Your task to perform on an android device: turn off notifications settings in the gmail app Image 0: 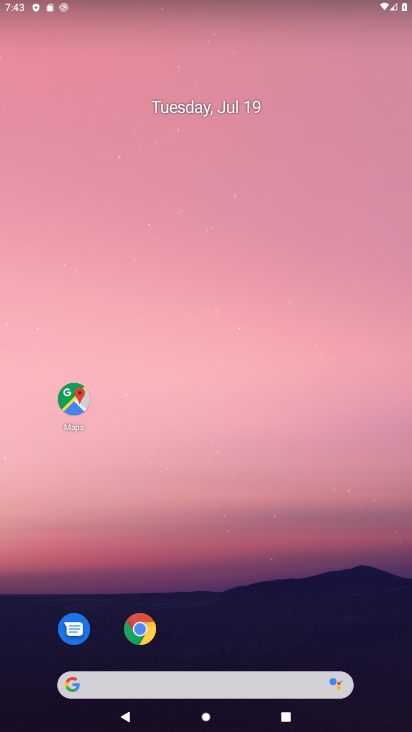
Step 0: drag from (236, 634) to (236, 132)
Your task to perform on an android device: turn off notifications settings in the gmail app Image 1: 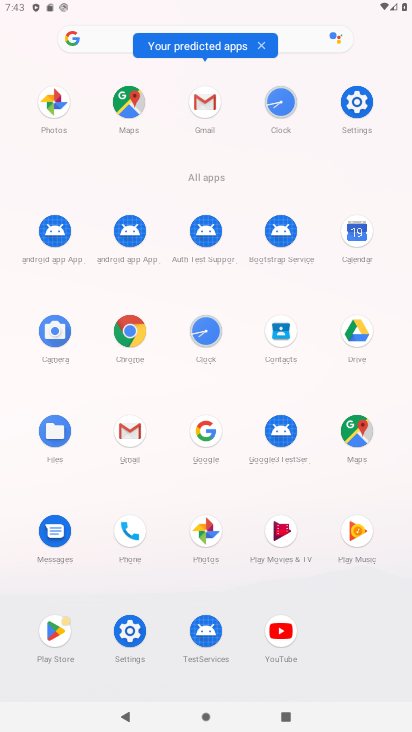
Step 1: click (208, 111)
Your task to perform on an android device: turn off notifications settings in the gmail app Image 2: 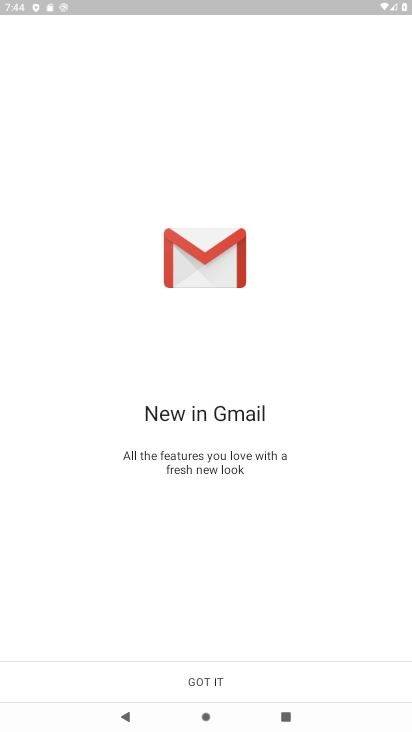
Step 2: click (184, 677)
Your task to perform on an android device: turn off notifications settings in the gmail app Image 3: 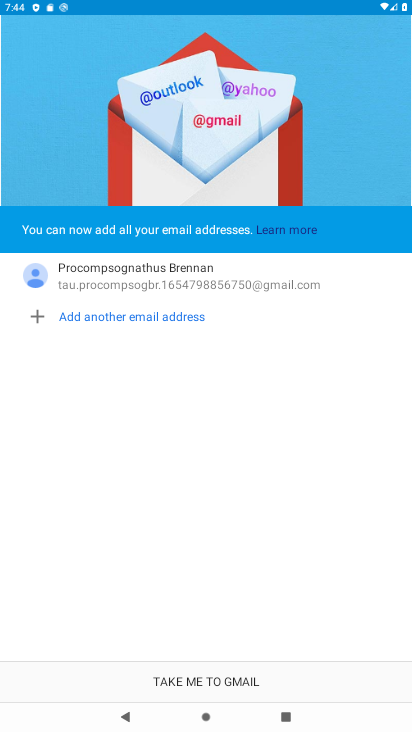
Step 3: click (184, 677)
Your task to perform on an android device: turn off notifications settings in the gmail app Image 4: 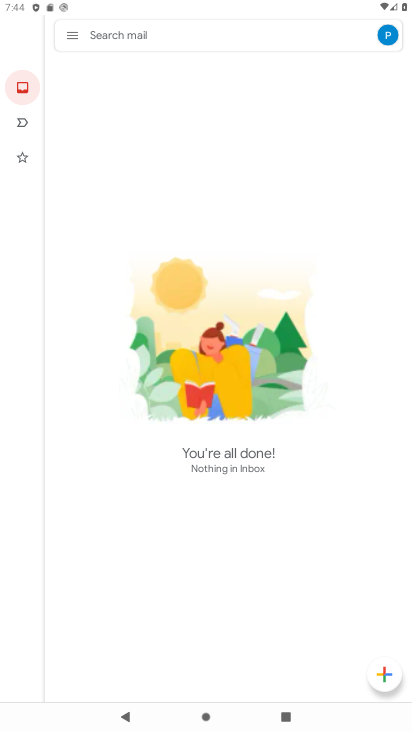
Step 4: click (66, 37)
Your task to perform on an android device: turn off notifications settings in the gmail app Image 5: 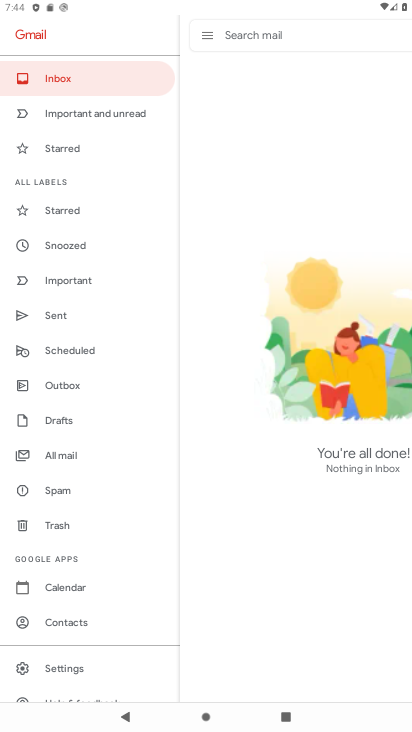
Step 5: click (63, 668)
Your task to perform on an android device: turn off notifications settings in the gmail app Image 6: 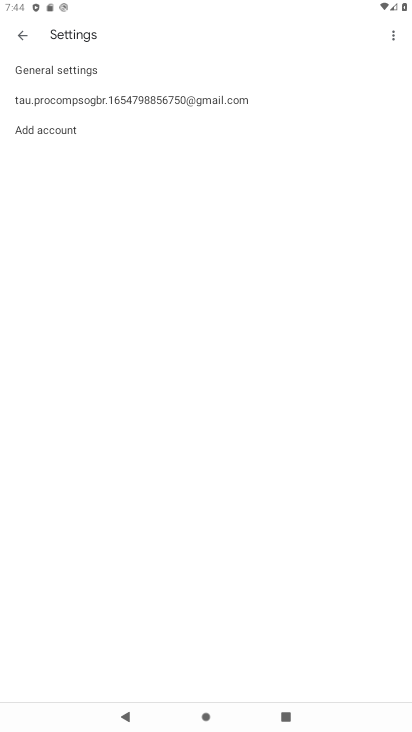
Step 6: click (188, 97)
Your task to perform on an android device: turn off notifications settings in the gmail app Image 7: 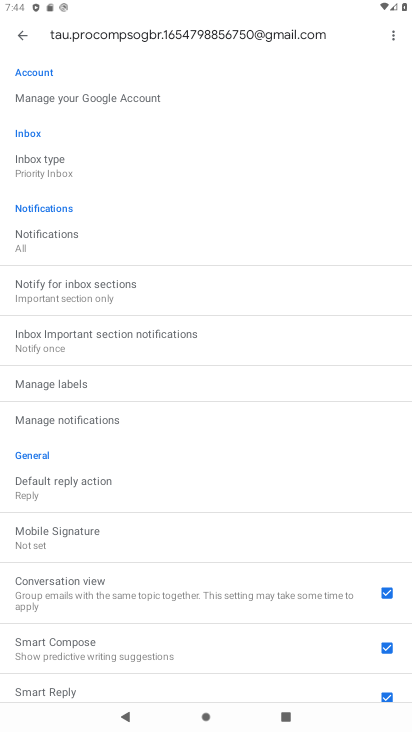
Step 7: click (37, 230)
Your task to perform on an android device: turn off notifications settings in the gmail app Image 8: 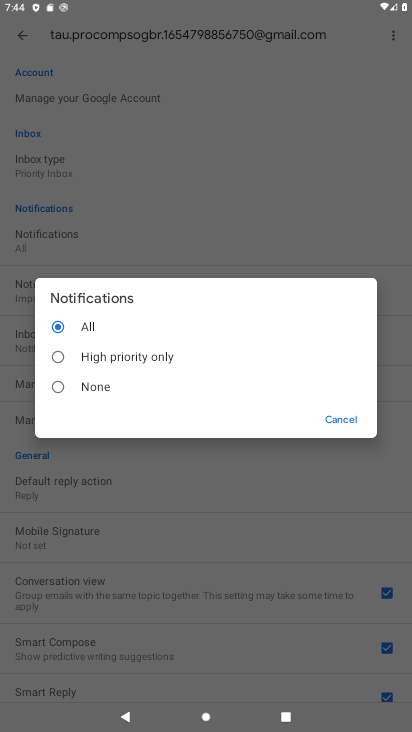
Step 8: click (54, 388)
Your task to perform on an android device: turn off notifications settings in the gmail app Image 9: 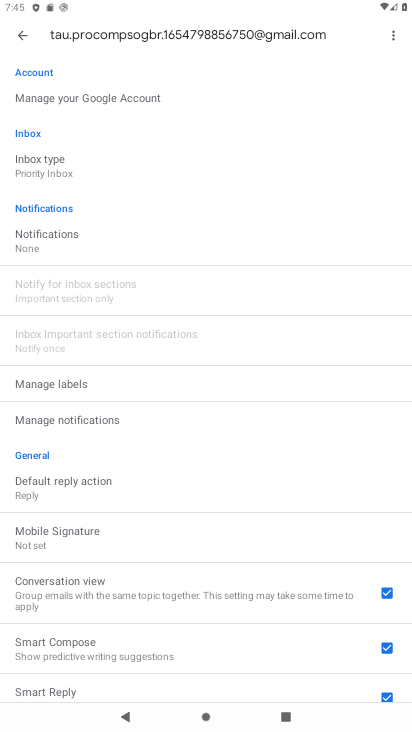
Step 9: task complete